Your task to perform on an android device: open the mobile data screen to see how much data has been used Image 0: 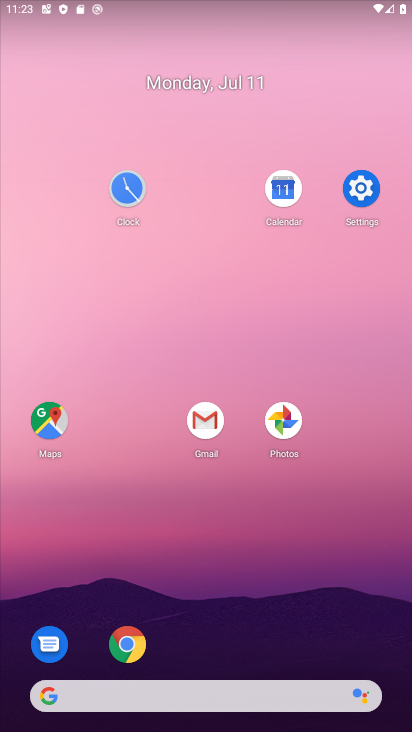
Step 0: click (361, 191)
Your task to perform on an android device: open the mobile data screen to see how much data has been used Image 1: 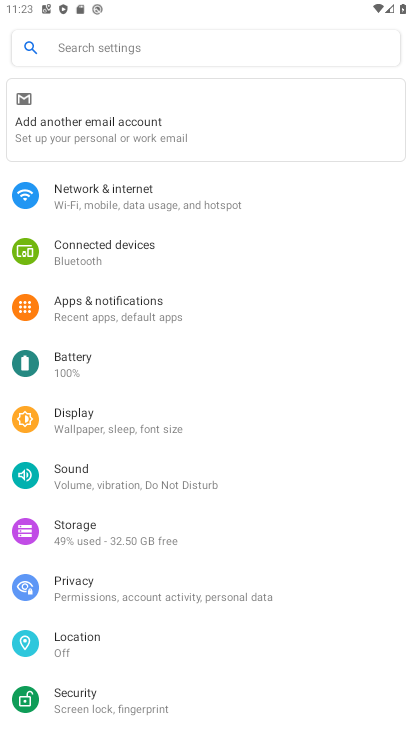
Step 1: click (158, 197)
Your task to perform on an android device: open the mobile data screen to see how much data has been used Image 2: 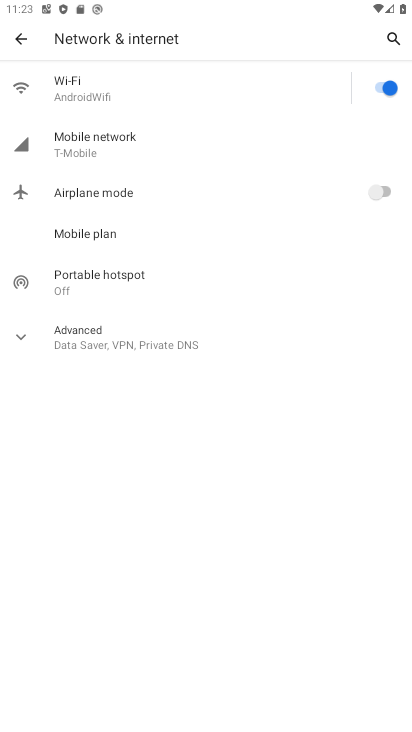
Step 2: click (177, 138)
Your task to perform on an android device: open the mobile data screen to see how much data has been used Image 3: 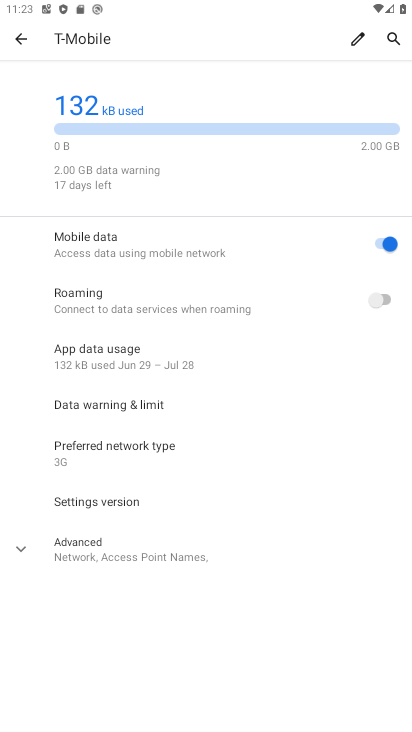
Step 3: task complete